Your task to perform on an android device: Go to accessibility settings Image 0: 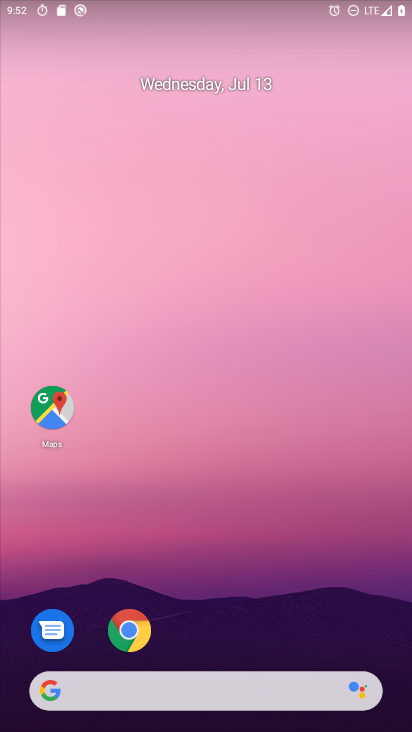
Step 0: drag from (374, 623) to (14, 117)
Your task to perform on an android device: Go to accessibility settings Image 1: 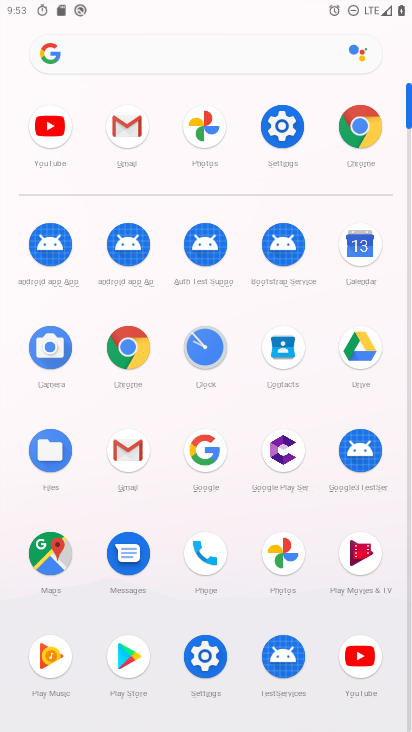
Step 1: click (205, 665)
Your task to perform on an android device: Go to accessibility settings Image 2: 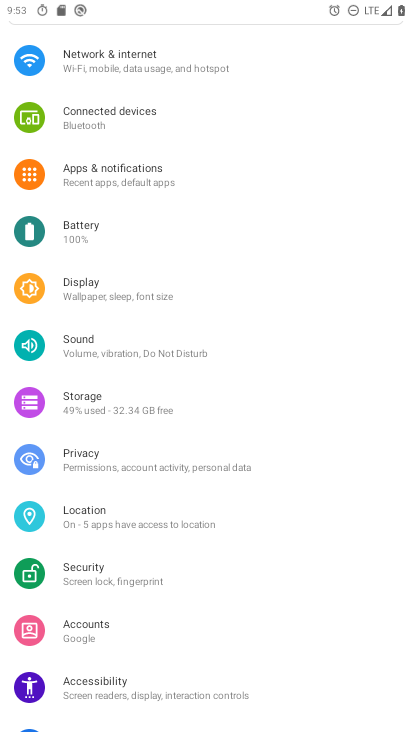
Step 2: click (79, 691)
Your task to perform on an android device: Go to accessibility settings Image 3: 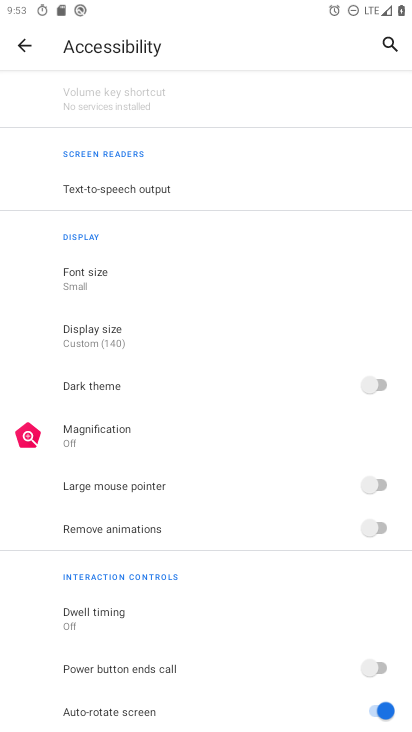
Step 3: task complete